Your task to perform on an android device: star an email in the gmail app Image 0: 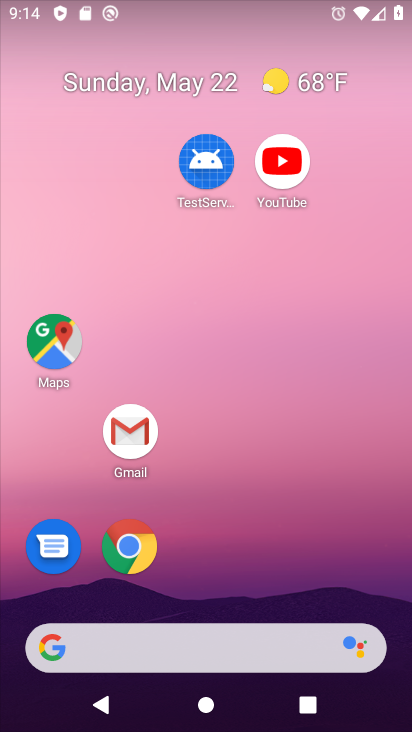
Step 0: drag from (274, 641) to (170, 135)
Your task to perform on an android device: star an email in the gmail app Image 1: 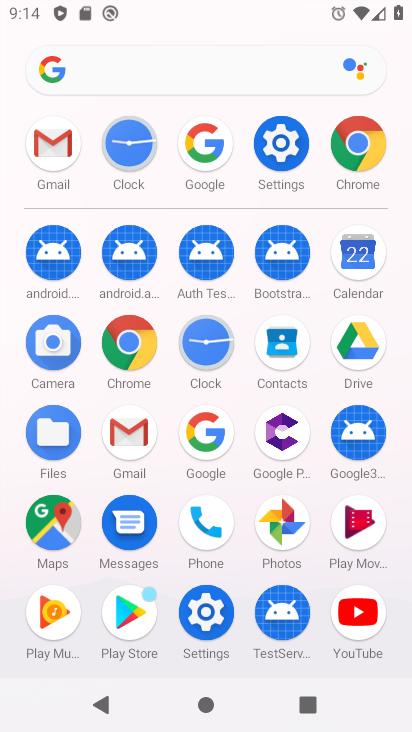
Step 1: drag from (283, 691) to (306, 86)
Your task to perform on an android device: star an email in the gmail app Image 2: 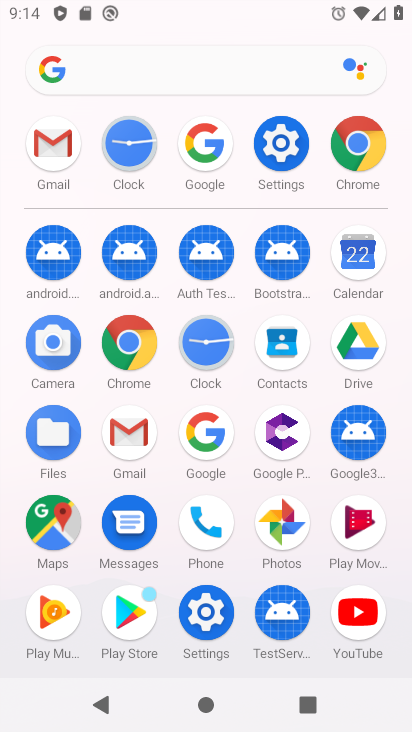
Step 2: click (126, 428)
Your task to perform on an android device: star an email in the gmail app Image 3: 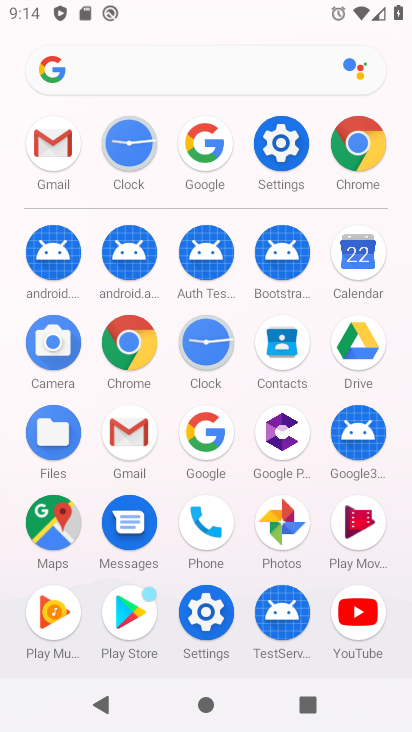
Step 3: click (126, 428)
Your task to perform on an android device: star an email in the gmail app Image 4: 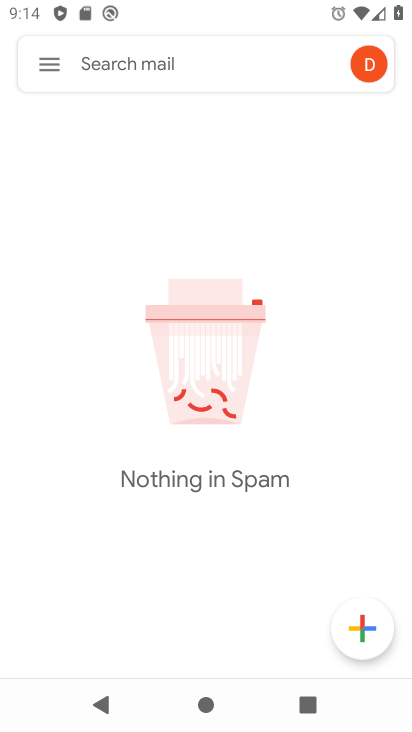
Step 4: click (129, 422)
Your task to perform on an android device: star an email in the gmail app Image 5: 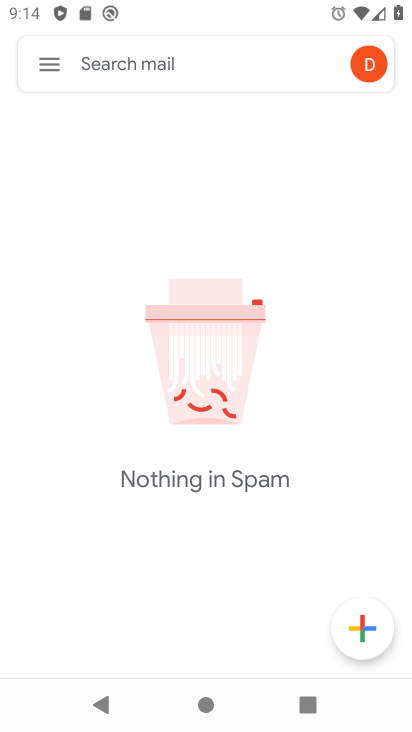
Step 5: click (130, 426)
Your task to perform on an android device: star an email in the gmail app Image 6: 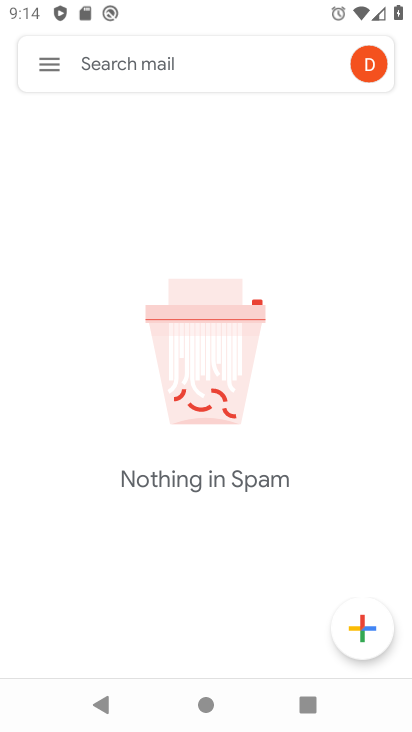
Step 6: click (135, 425)
Your task to perform on an android device: star an email in the gmail app Image 7: 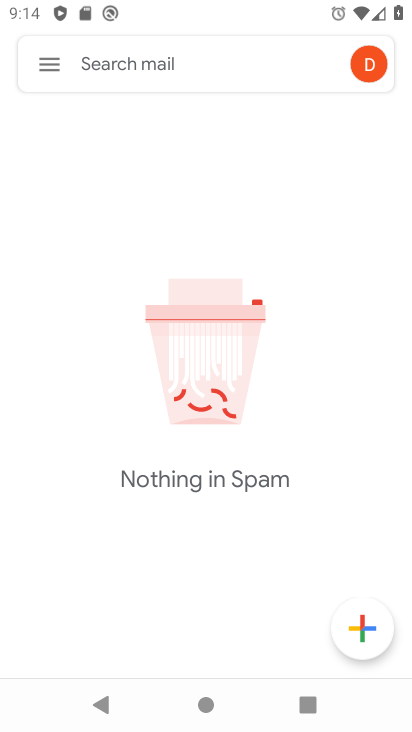
Step 7: click (53, 70)
Your task to perform on an android device: star an email in the gmail app Image 8: 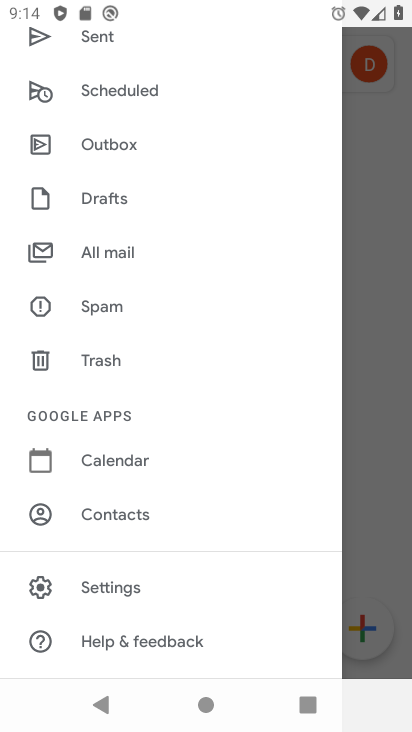
Step 8: click (103, 249)
Your task to perform on an android device: star an email in the gmail app Image 9: 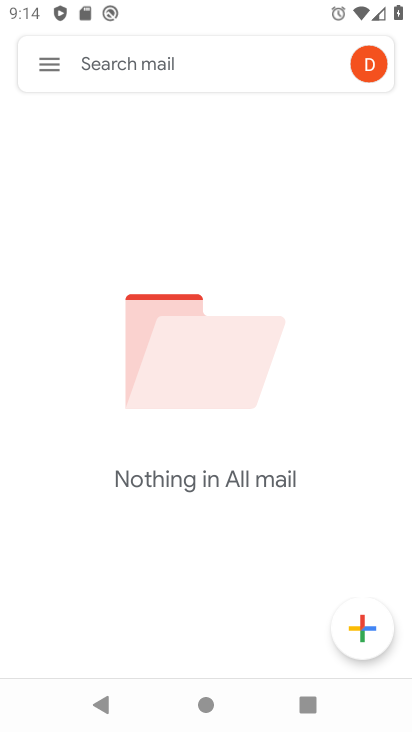
Step 9: task complete